Your task to perform on an android device: turn off improve location accuracy Image 0: 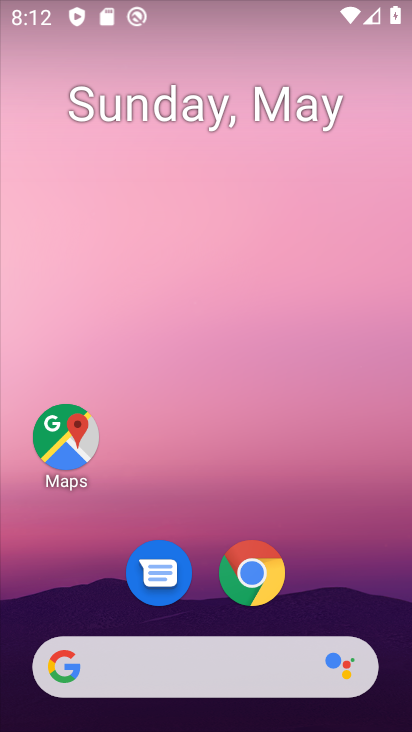
Step 0: drag from (402, 613) to (268, 150)
Your task to perform on an android device: turn off improve location accuracy Image 1: 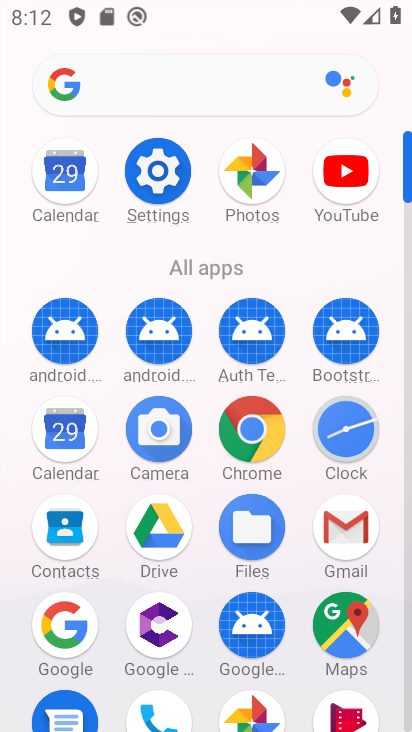
Step 1: click (165, 170)
Your task to perform on an android device: turn off improve location accuracy Image 2: 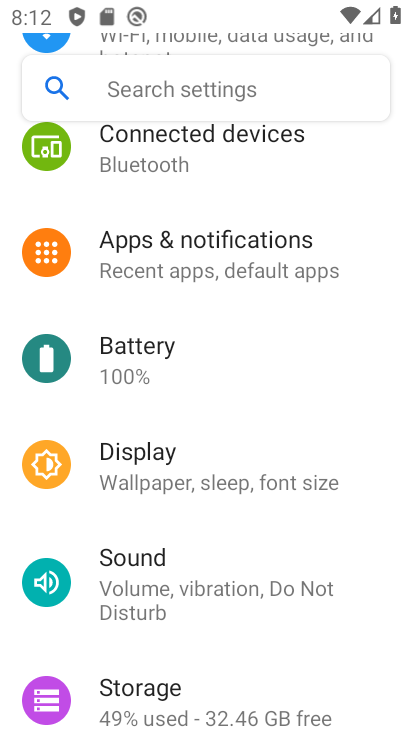
Step 2: drag from (229, 643) to (193, 251)
Your task to perform on an android device: turn off improve location accuracy Image 3: 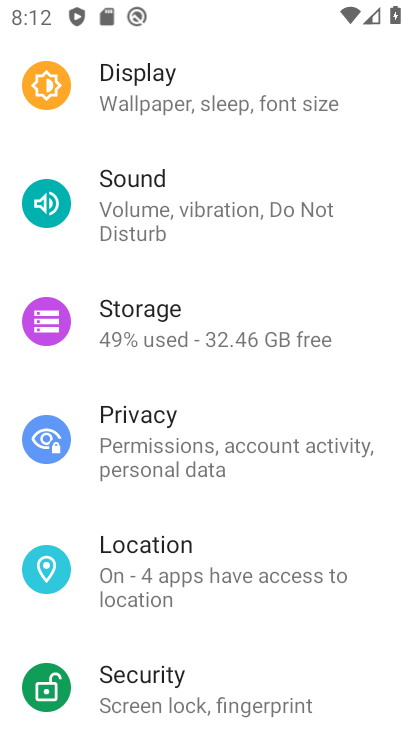
Step 3: click (219, 542)
Your task to perform on an android device: turn off improve location accuracy Image 4: 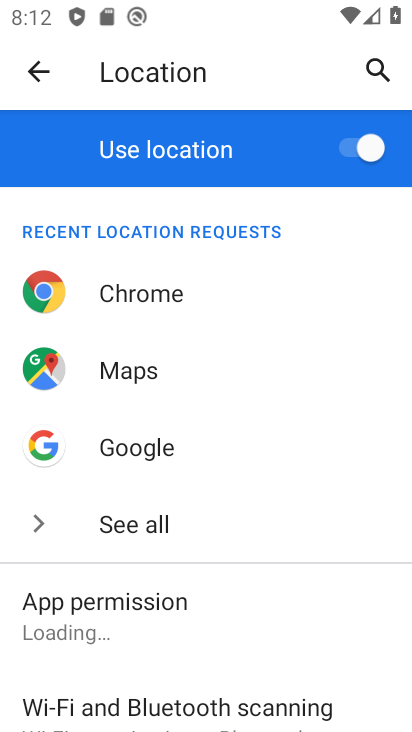
Step 4: drag from (260, 638) to (188, 307)
Your task to perform on an android device: turn off improve location accuracy Image 5: 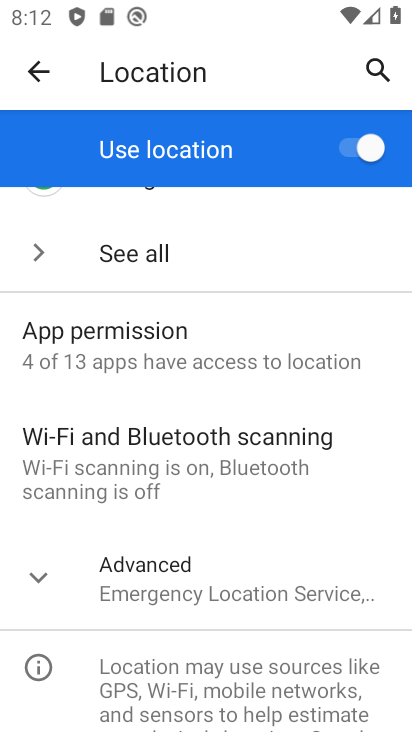
Step 5: click (237, 588)
Your task to perform on an android device: turn off improve location accuracy Image 6: 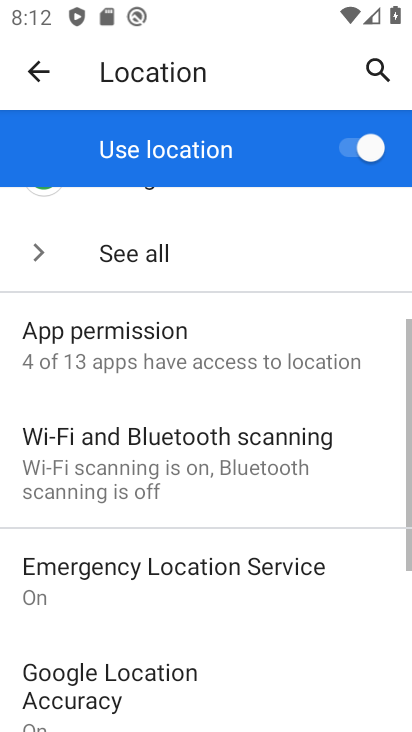
Step 6: drag from (237, 588) to (212, 278)
Your task to perform on an android device: turn off improve location accuracy Image 7: 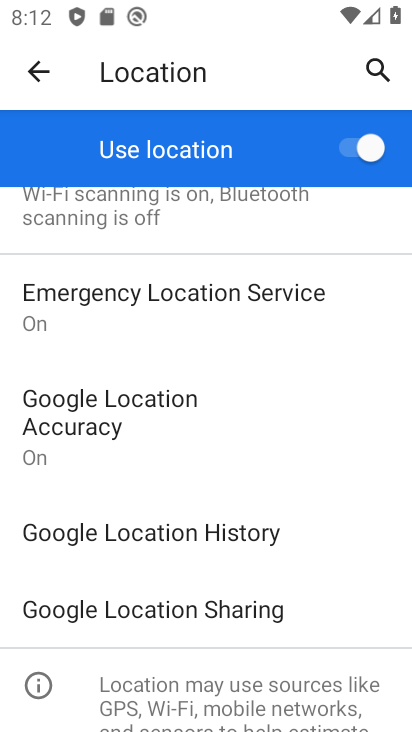
Step 7: click (214, 412)
Your task to perform on an android device: turn off improve location accuracy Image 8: 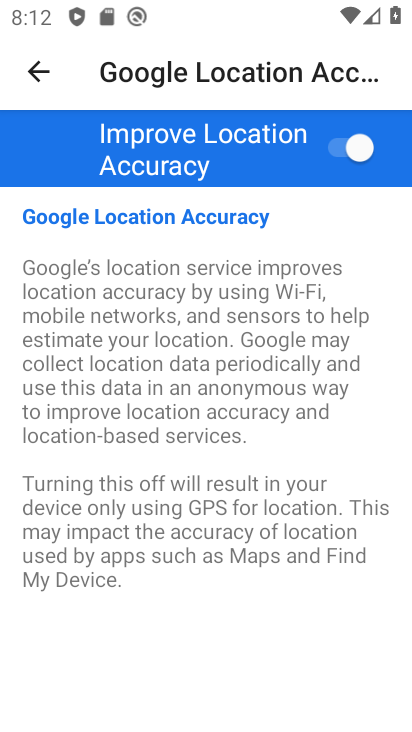
Step 8: click (342, 140)
Your task to perform on an android device: turn off improve location accuracy Image 9: 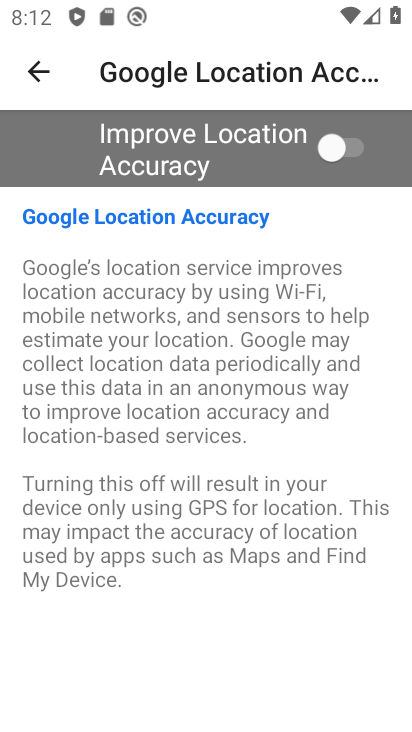
Step 9: task complete